Your task to perform on an android device: Open maps Image 0: 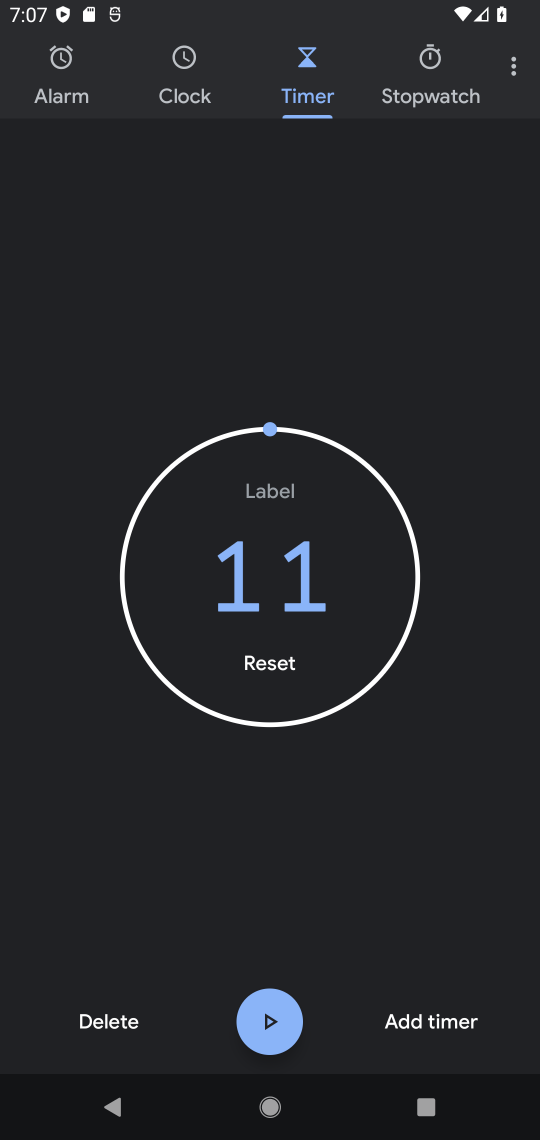
Step 0: press home button
Your task to perform on an android device: Open maps Image 1: 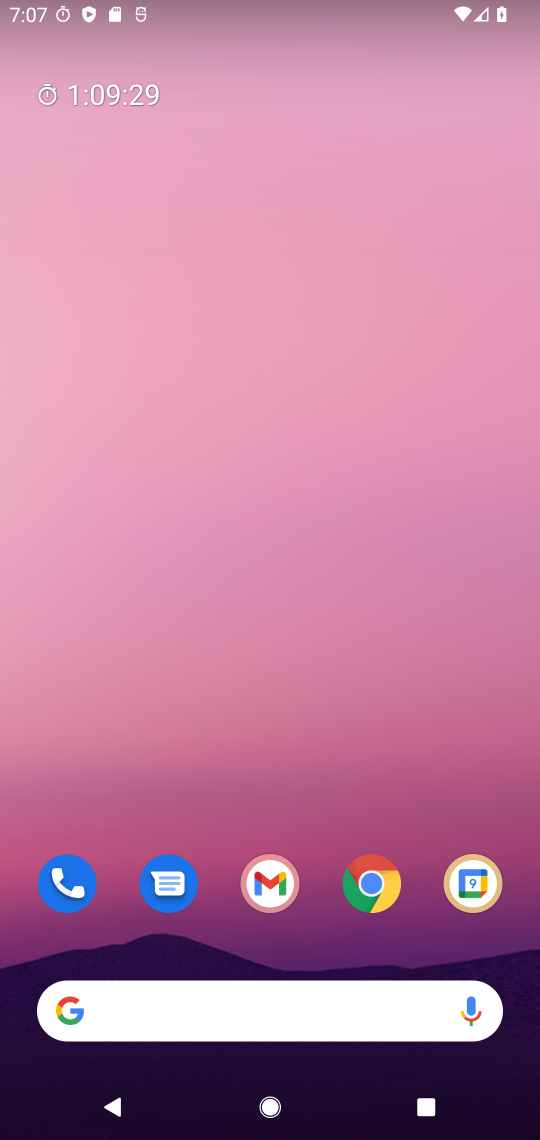
Step 1: click (281, 805)
Your task to perform on an android device: Open maps Image 2: 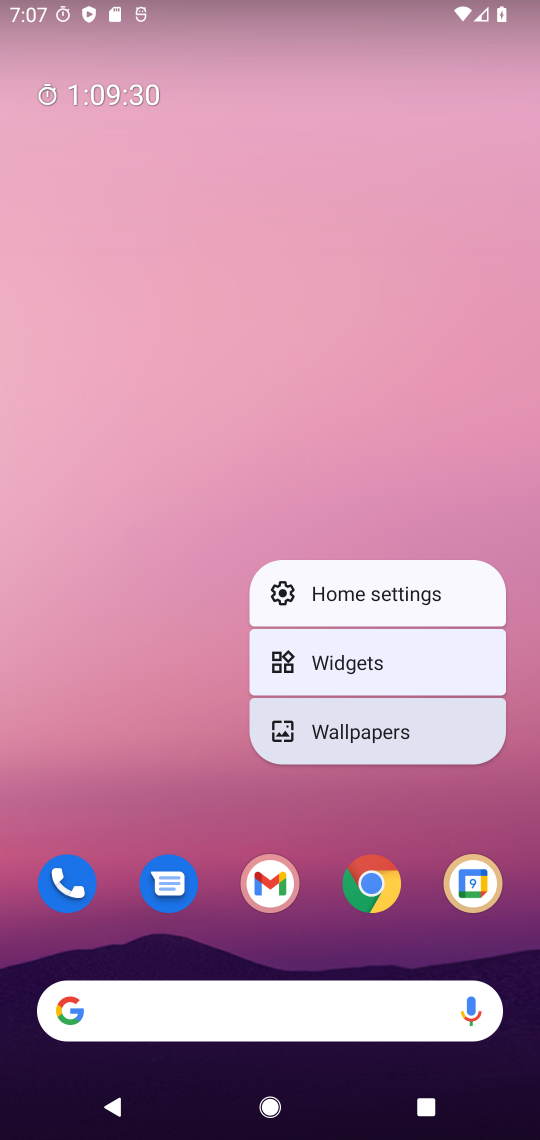
Step 2: drag from (290, 654) to (290, 317)
Your task to perform on an android device: Open maps Image 3: 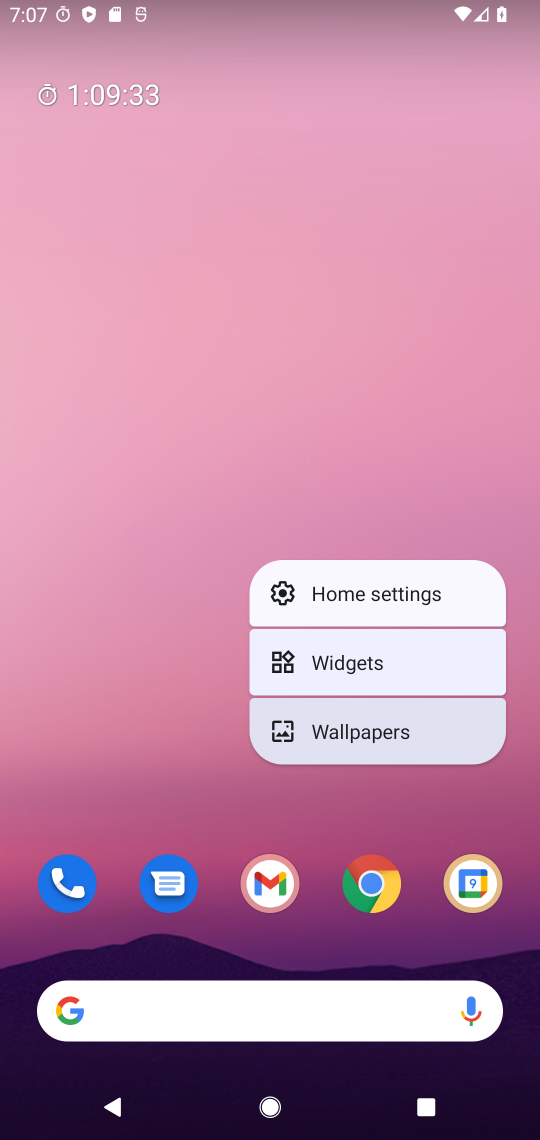
Step 3: click (197, 413)
Your task to perform on an android device: Open maps Image 4: 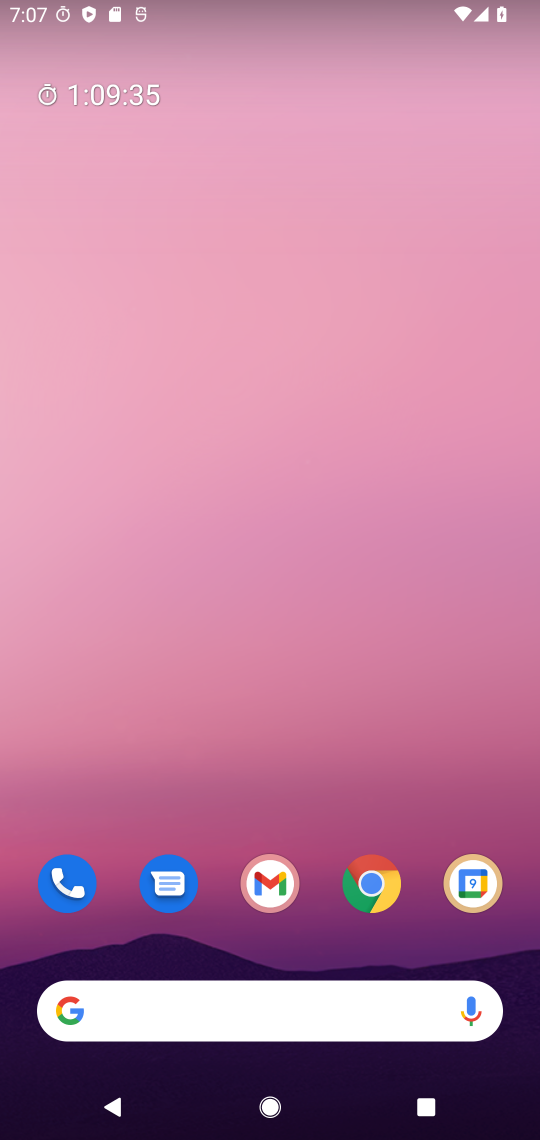
Step 4: drag from (257, 774) to (299, 213)
Your task to perform on an android device: Open maps Image 5: 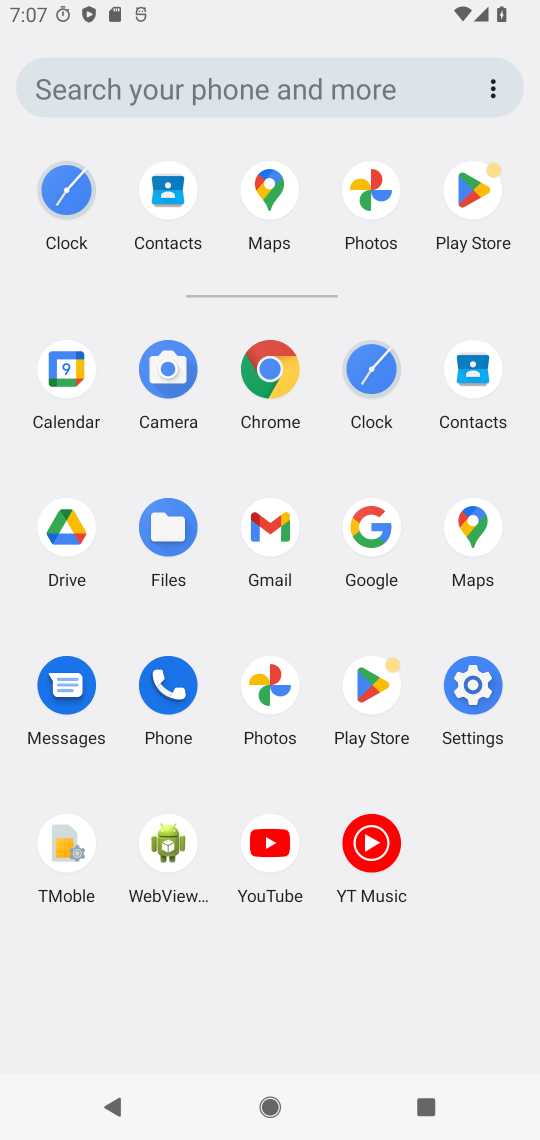
Step 5: click (273, 205)
Your task to perform on an android device: Open maps Image 6: 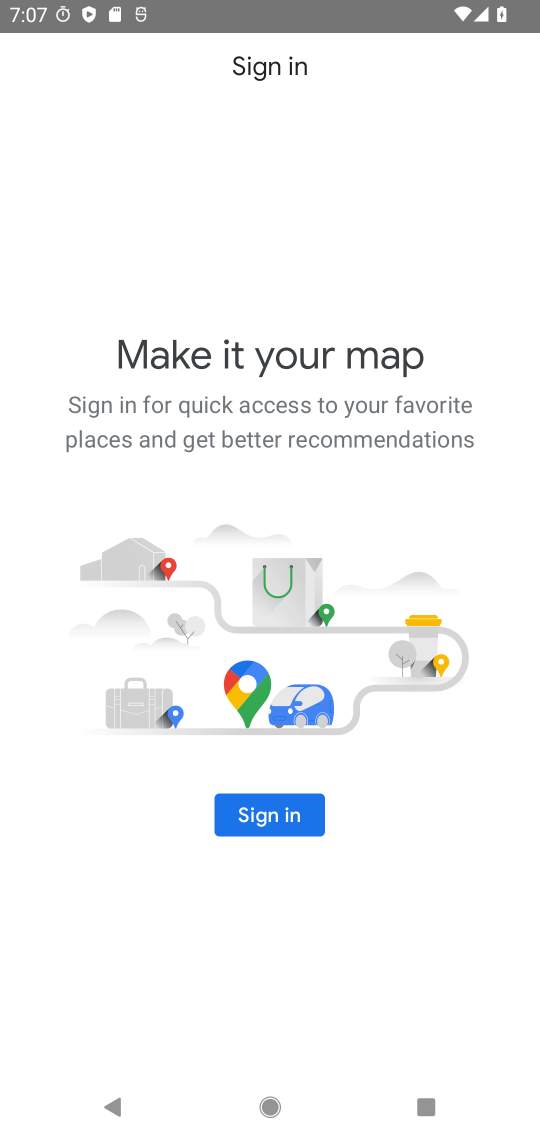
Step 6: task complete